Your task to perform on an android device: turn on location history Image 0: 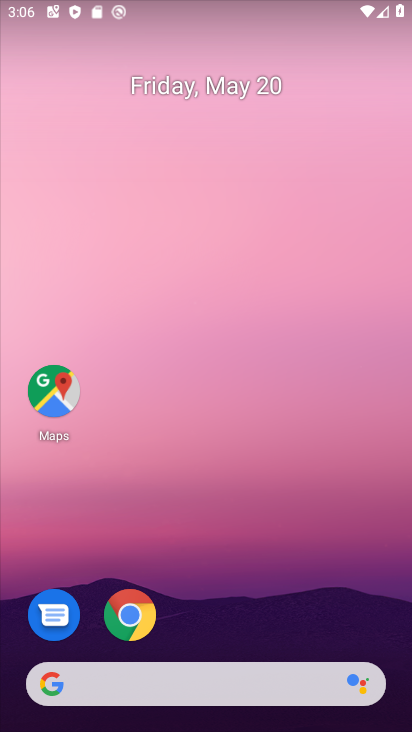
Step 0: drag from (218, 612) to (203, 288)
Your task to perform on an android device: turn on location history Image 1: 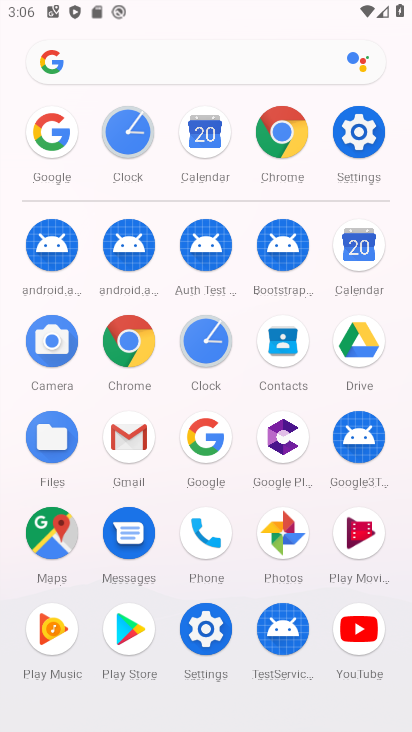
Step 1: click (201, 624)
Your task to perform on an android device: turn on location history Image 2: 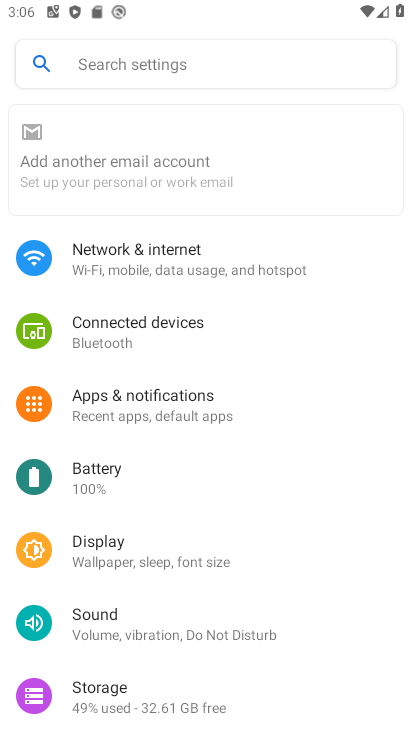
Step 2: drag from (215, 585) to (251, 171)
Your task to perform on an android device: turn on location history Image 3: 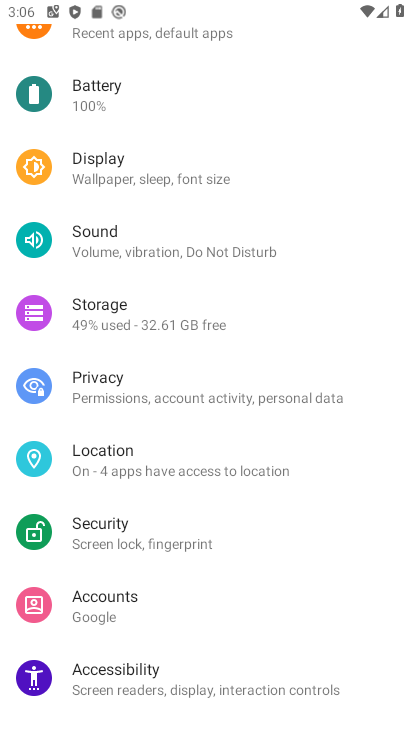
Step 3: drag from (179, 602) to (195, 408)
Your task to perform on an android device: turn on location history Image 4: 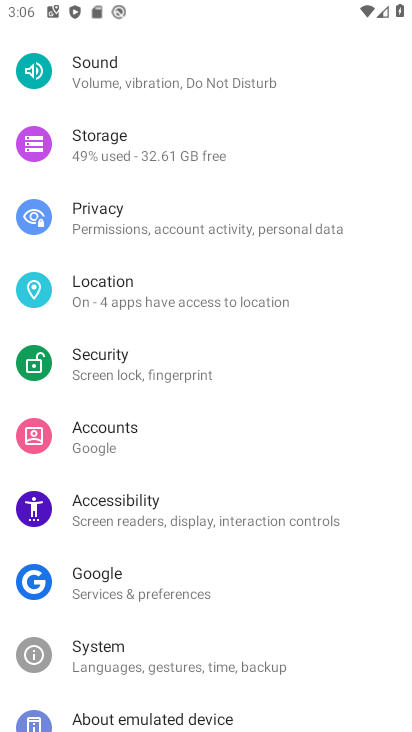
Step 4: click (126, 306)
Your task to perform on an android device: turn on location history Image 5: 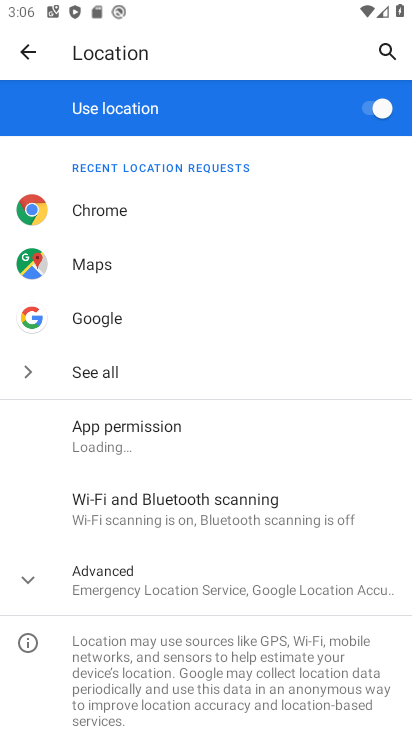
Step 5: click (137, 570)
Your task to perform on an android device: turn on location history Image 6: 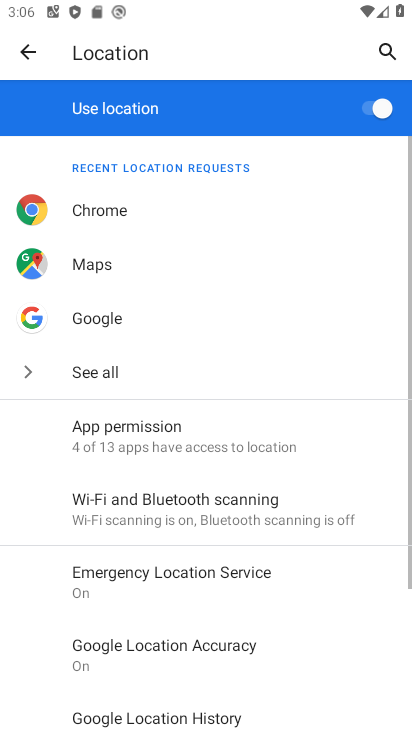
Step 6: drag from (231, 560) to (271, 238)
Your task to perform on an android device: turn on location history Image 7: 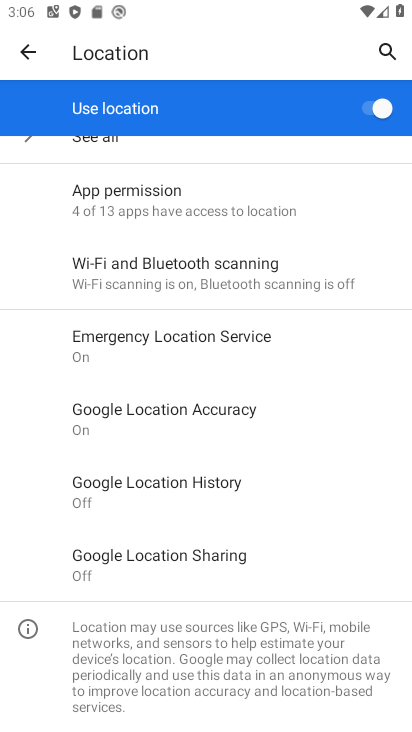
Step 7: click (216, 472)
Your task to perform on an android device: turn on location history Image 8: 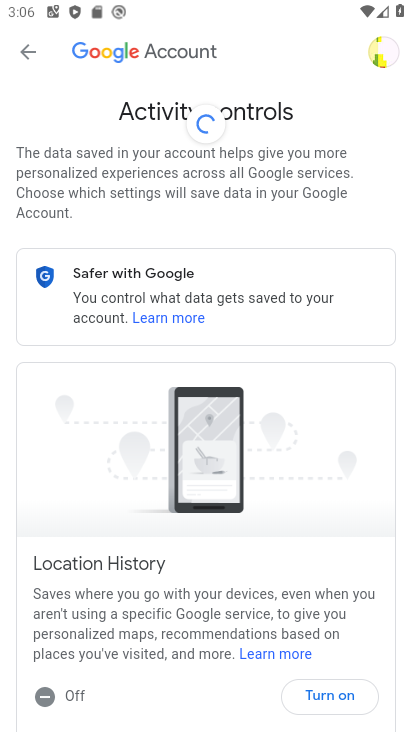
Step 8: drag from (294, 636) to (296, 471)
Your task to perform on an android device: turn on location history Image 9: 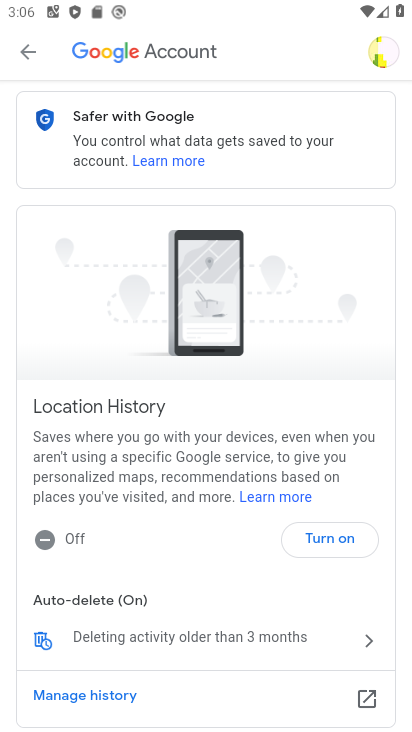
Step 9: click (318, 531)
Your task to perform on an android device: turn on location history Image 10: 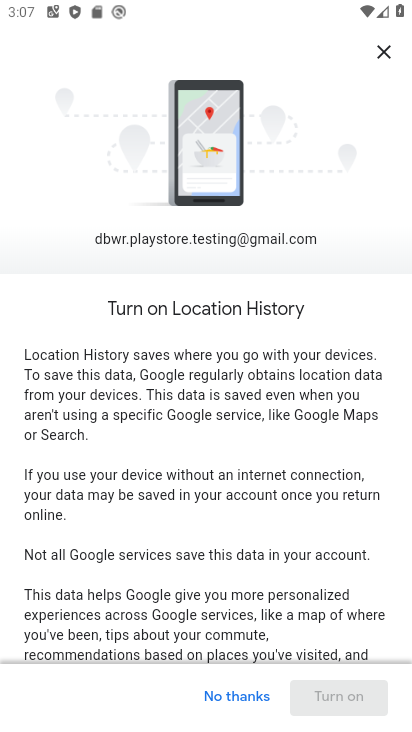
Step 10: task complete